Your task to perform on an android device: Open Amazon Image 0: 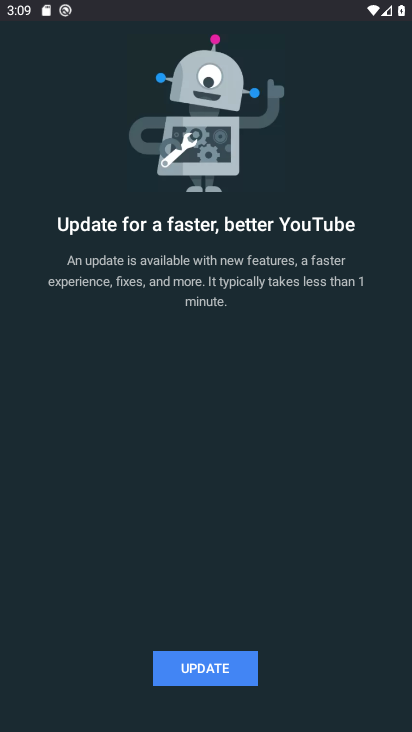
Step 0: drag from (308, 475) to (310, 282)
Your task to perform on an android device: Open Amazon Image 1: 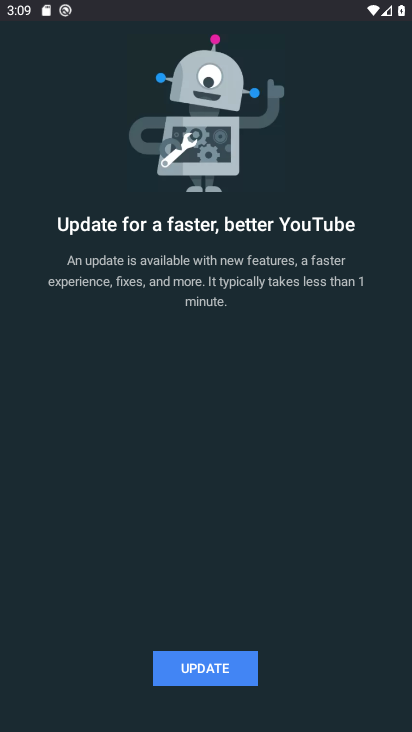
Step 1: drag from (225, 533) to (249, 432)
Your task to perform on an android device: Open Amazon Image 2: 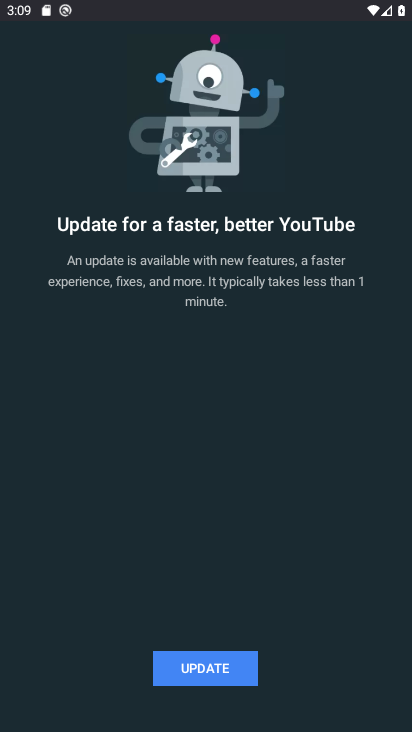
Step 2: press home button
Your task to perform on an android device: Open Amazon Image 3: 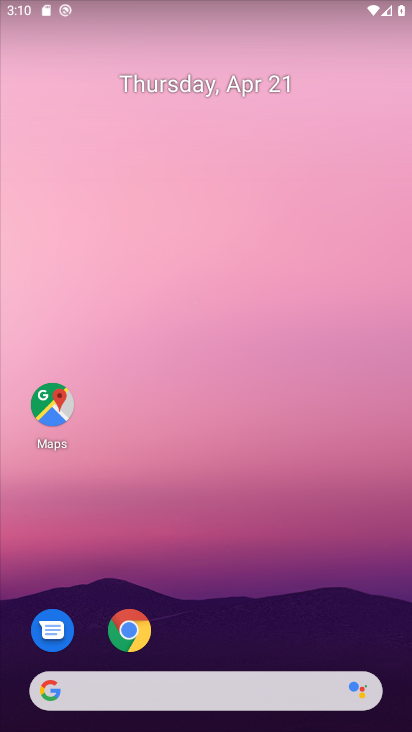
Step 3: drag from (175, 543) to (234, 64)
Your task to perform on an android device: Open Amazon Image 4: 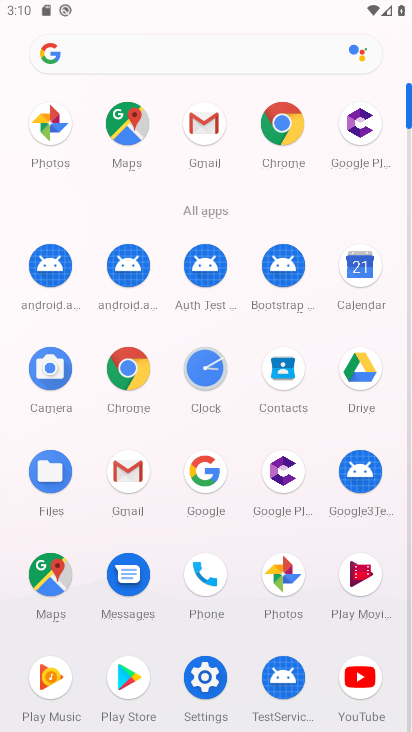
Step 4: click (130, 365)
Your task to perform on an android device: Open Amazon Image 5: 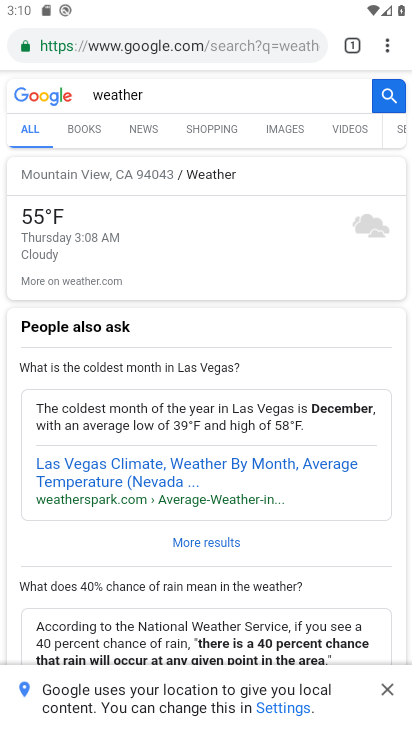
Step 5: click (154, 53)
Your task to perform on an android device: Open Amazon Image 6: 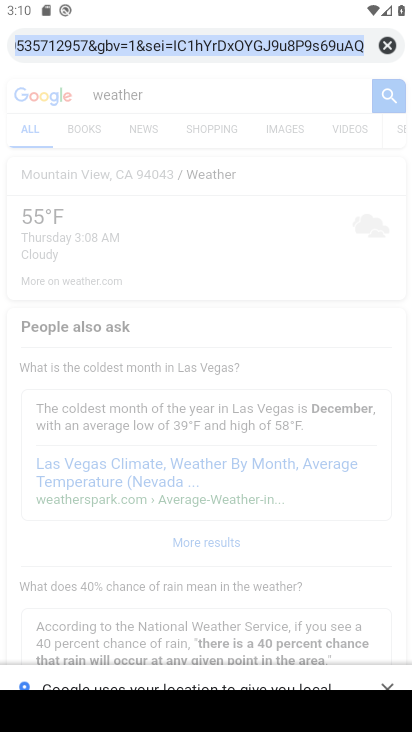
Step 6: click (385, 54)
Your task to perform on an android device: Open Amazon Image 7: 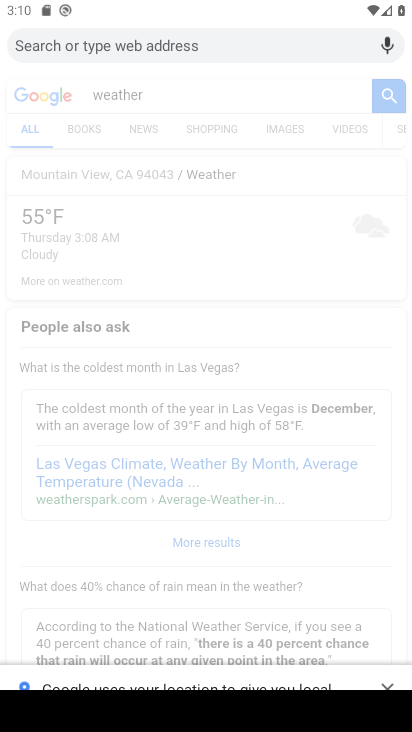
Step 7: click (123, 47)
Your task to perform on an android device: Open Amazon Image 8: 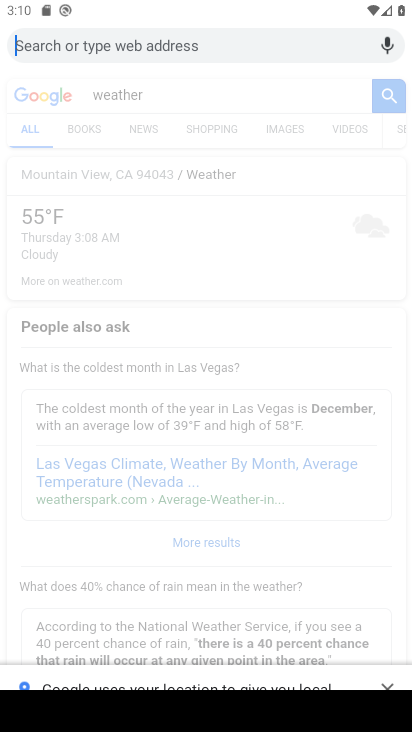
Step 8: type "amazon"
Your task to perform on an android device: Open Amazon Image 9: 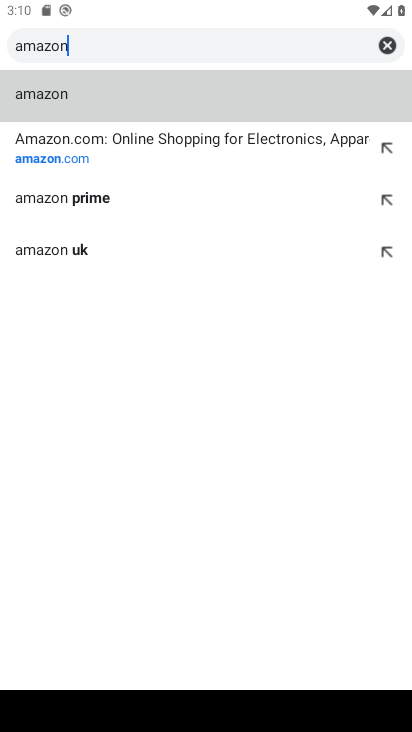
Step 9: click (62, 100)
Your task to perform on an android device: Open Amazon Image 10: 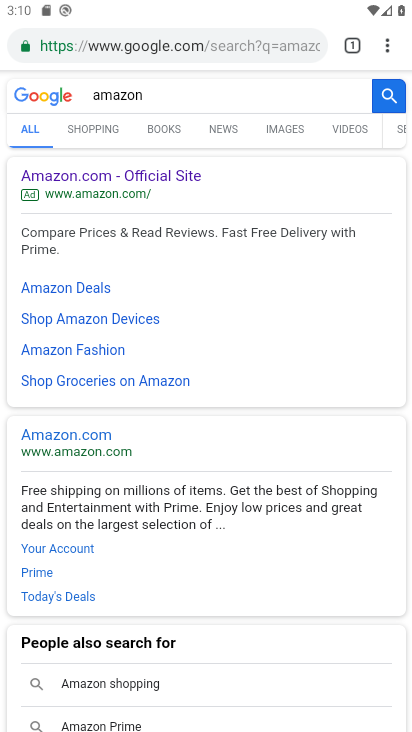
Step 10: task complete